Your task to perform on an android device: Open privacy settings Image 0: 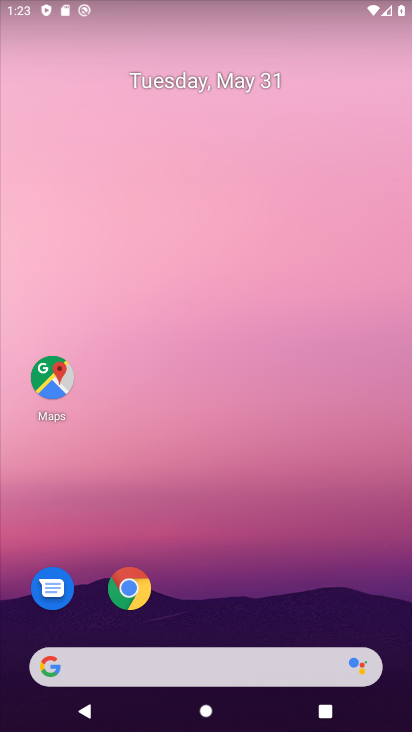
Step 0: drag from (212, 602) to (204, 228)
Your task to perform on an android device: Open privacy settings Image 1: 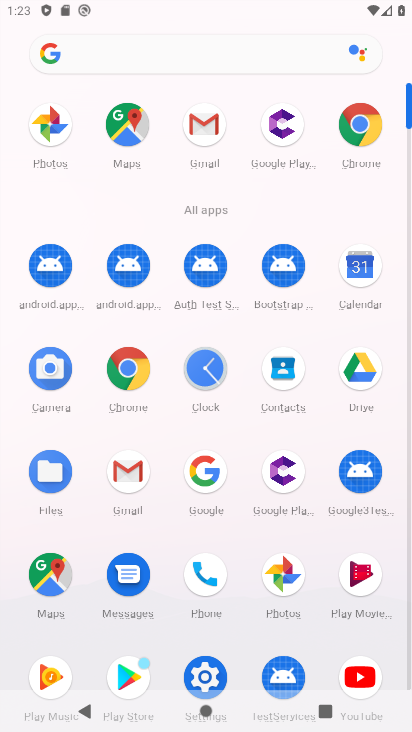
Step 1: click (202, 675)
Your task to perform on an android device: Open privacy settings Image 2: 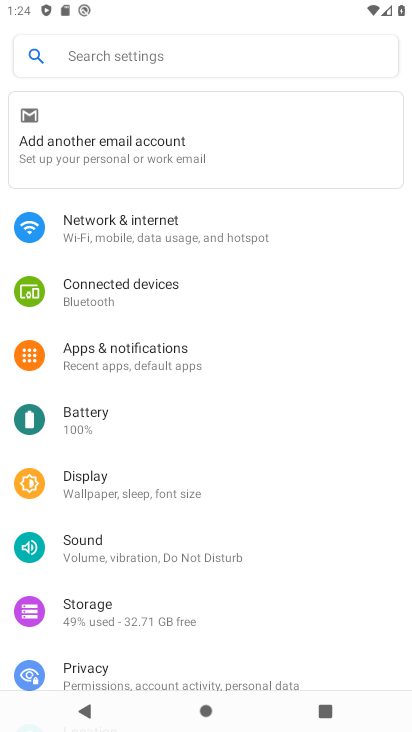
Step 2: click (212, 678)
Your task to perform on an android device: Open privacy settings Image 3: 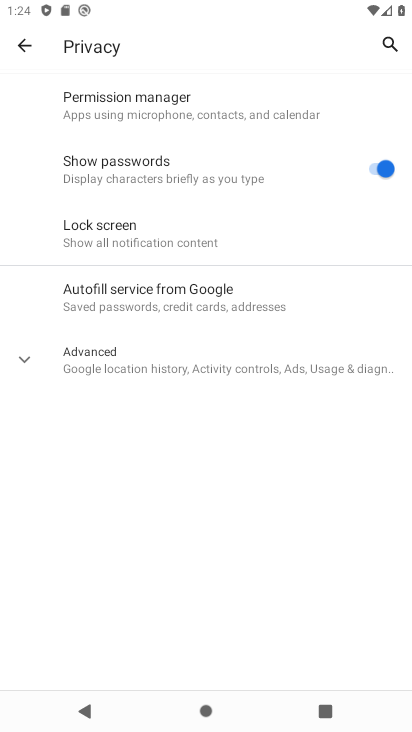
Step 3: task complete